Your task to perform on an android device: check google app version Image 0: 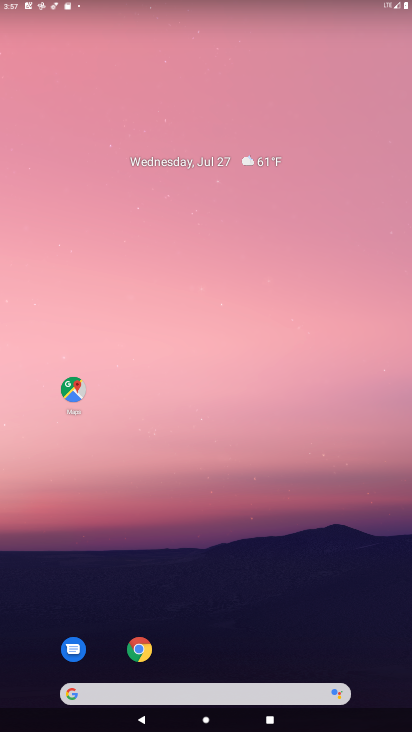
Step 0: click (70, 697)
Your task to perform on an android device: check google app version Image 1: 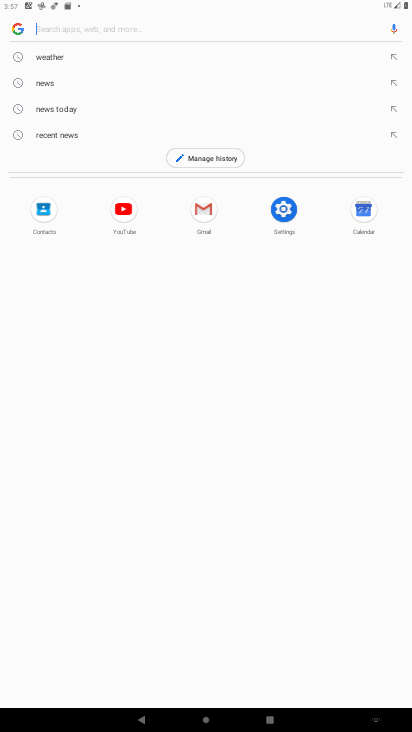
Step 1: click (15, 27)
Your task to perform on an android device: check google app version Image 2: 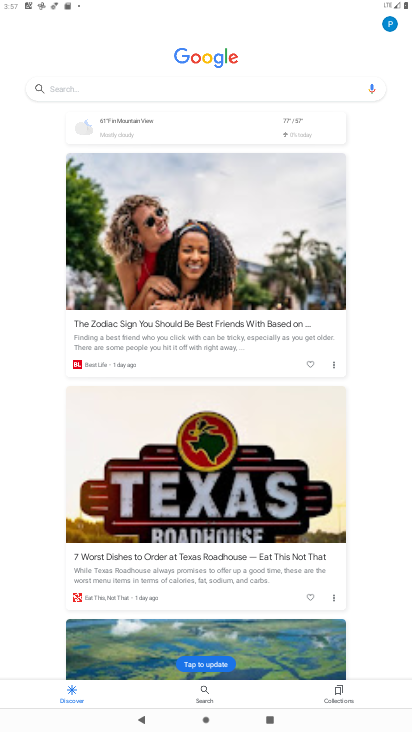
Step 2: click (392, 19)
Your task to perform on an android device: check google app version Image 3: 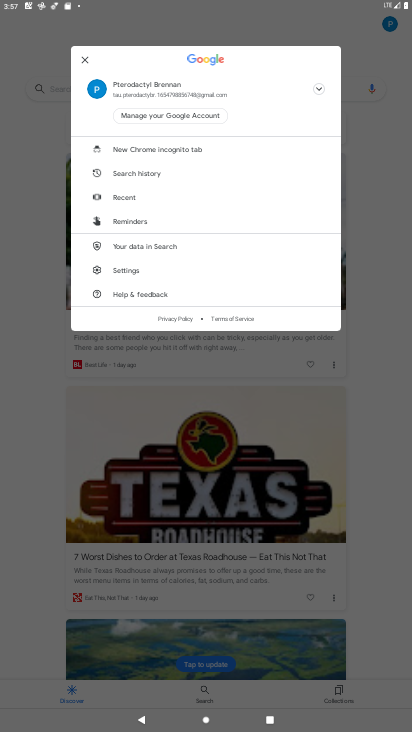
Step 3: click (134, 270)
Your task to perform on an android device: check google app version Image 4: 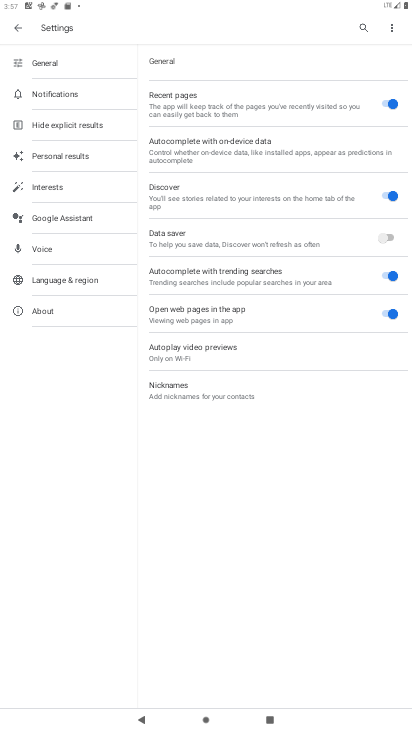
Step 4: click (44, 311)
Your task to perform on an android device: check google app version Image 5: 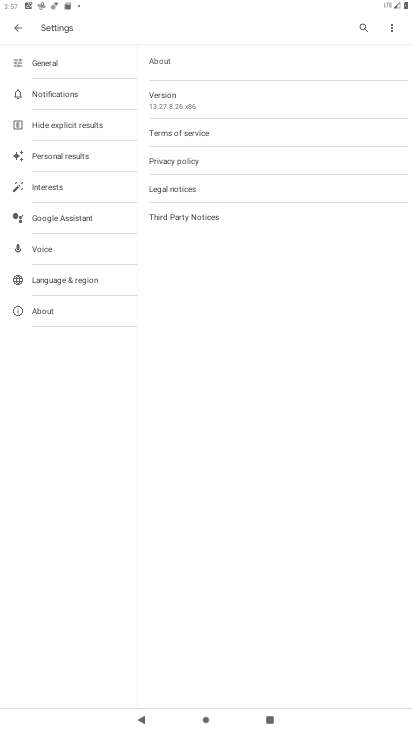
Step 5: task complete